Your task to perform on an android device: clear history in the chrome app Image 0: 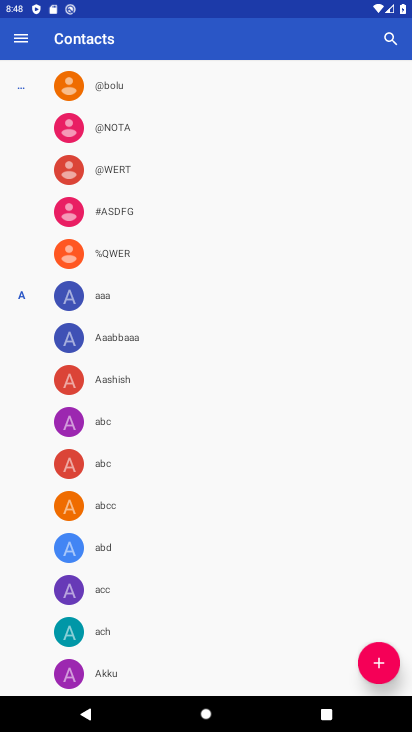
Step 0: press back button
Your task to perform on an android device: clear history in the chrome app Image 1: 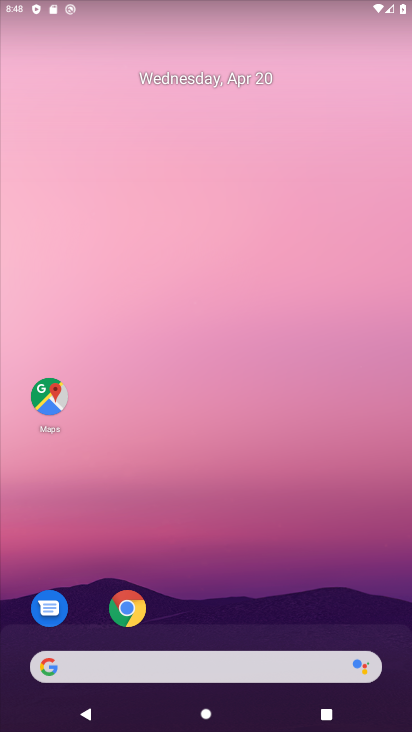
Step 1: click (137, 610)
Your task to perform on an android device: clear history in the chrome app Image 2: 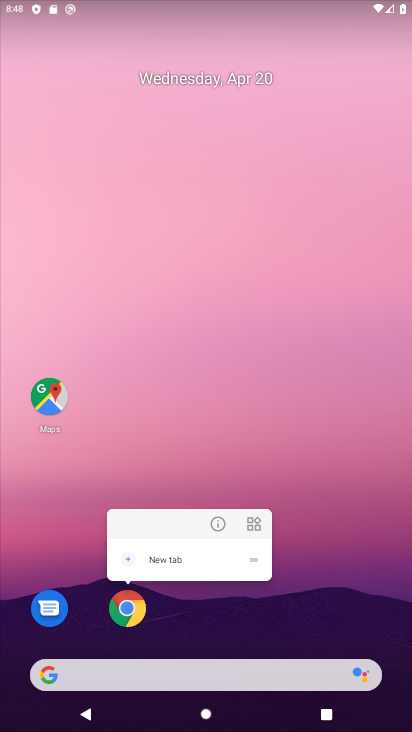
Step 2: click (137, 610)
Your task to perform on an android device: clear history in the chrome app Image 3: 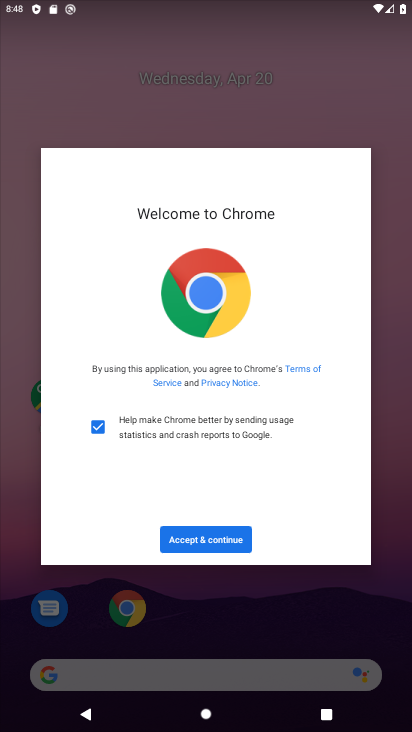
Step 3: click (190, 547)
Your task to perform on an android device: clear history in the chrome app Image 4: 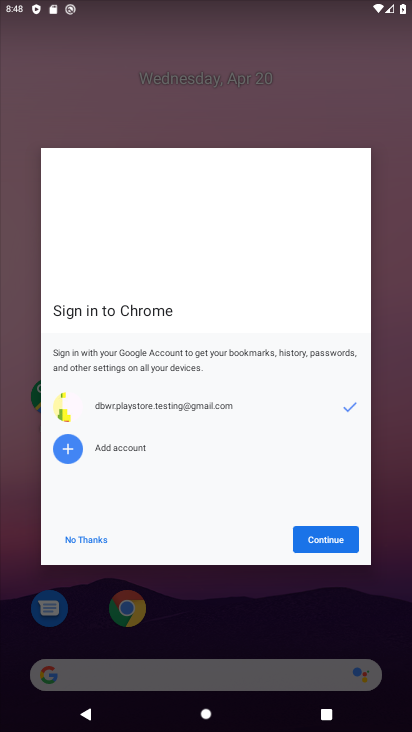
Step 4: click (336, 536)
Your task to perform on an android device: clear history in the chrome app Image 5: 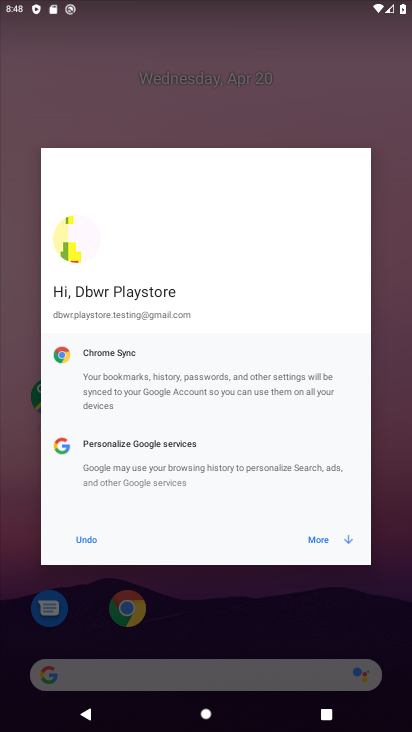
Step 5: click (336, 536)
Your task to perform on an android device: clear history in the chrome app Image 6: 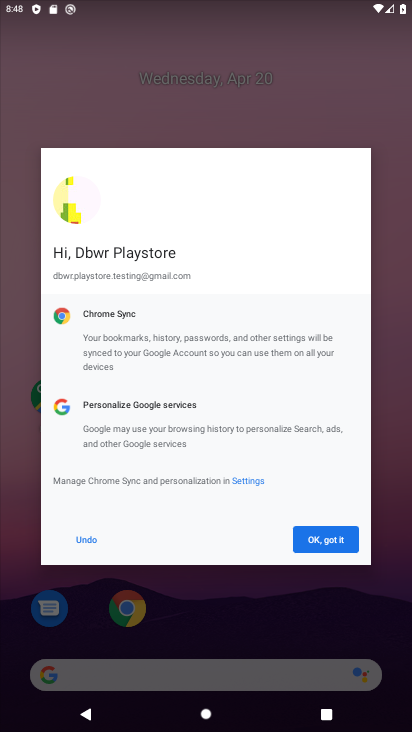
Step 6: click (336, 536)
Your task to perform on an android device: clear history in the chrome app Image 7: 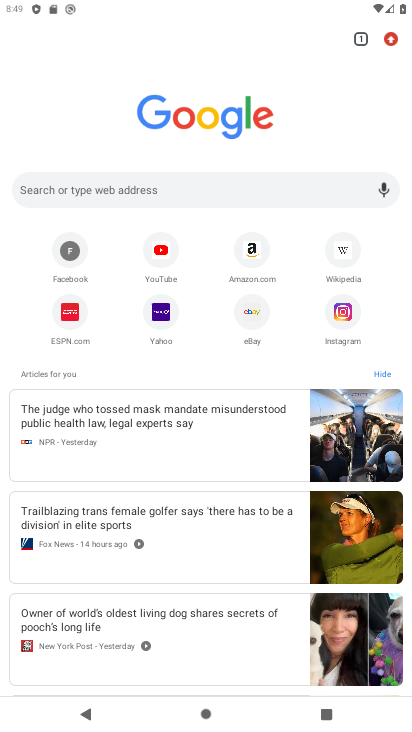
Step 7: drag from (389, 49) to (254, 266)
Your task to perform on an android device: clear history in the chrome app Image 8: 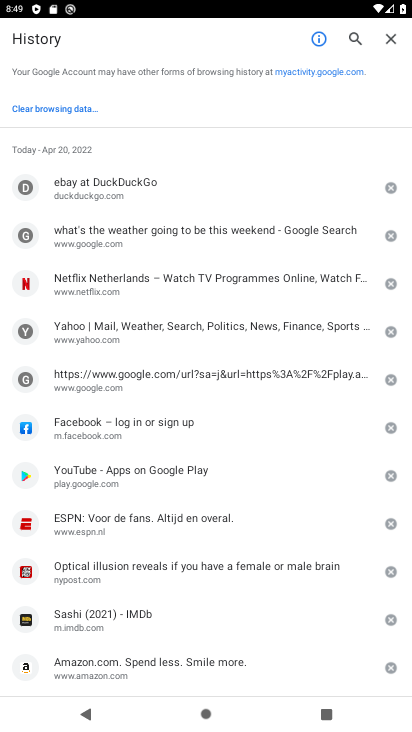
Step 8: click (58, 108)
Your task to perform on an android device: clear history in the chrome app Image 9: 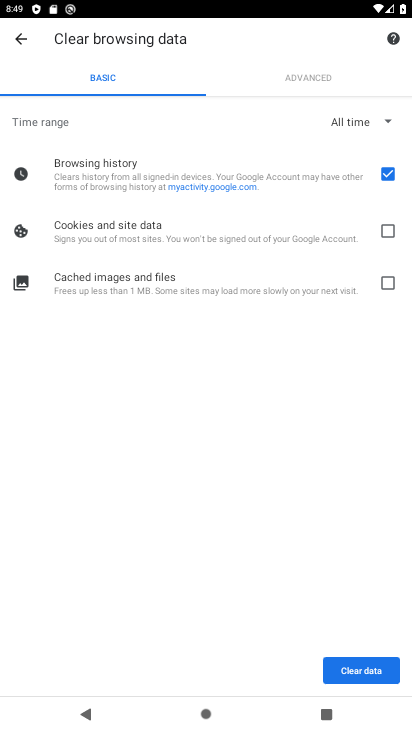
Step 9: click (354, 663)
Your task to perform on an android device: clear history in the chrome app Image 10: 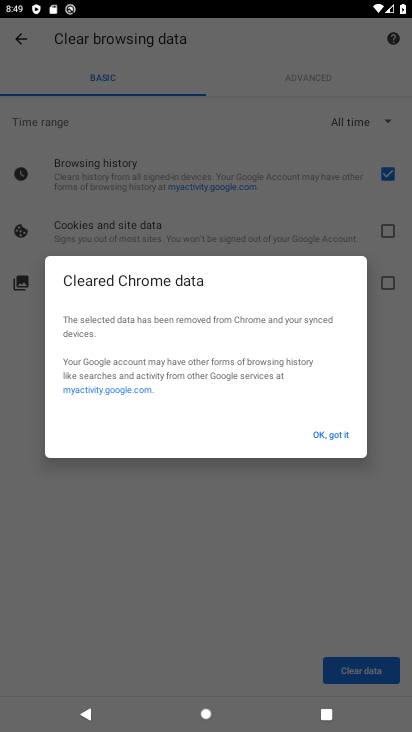
Step 10: click (324, 435)
Your task to perform on an android device: clear history in the chrome app Image 11: 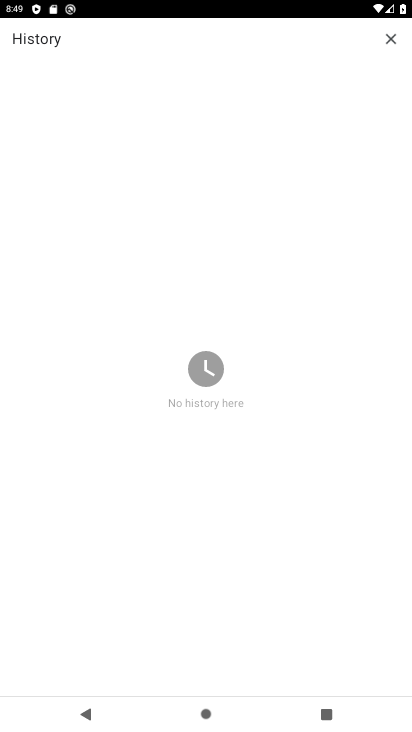
Step 11: task complete